Your task to perform on an android device: Open the Play Movies app and select the watchlist tab. Image 0: 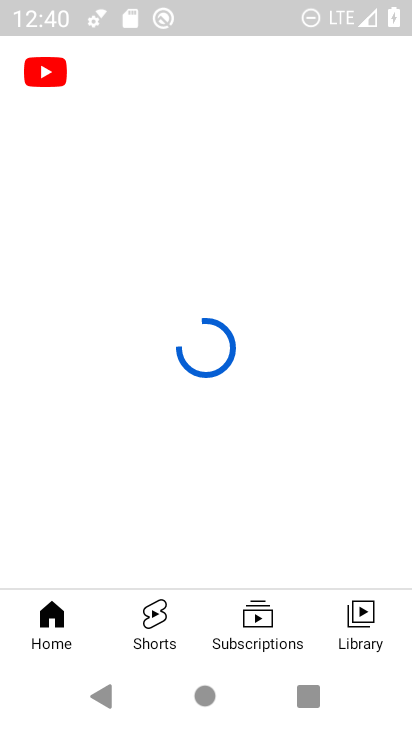
Step 0: press home button
Your task to perform on an android device: Open the Play Movies app and select the watchlist tab. Image 1: 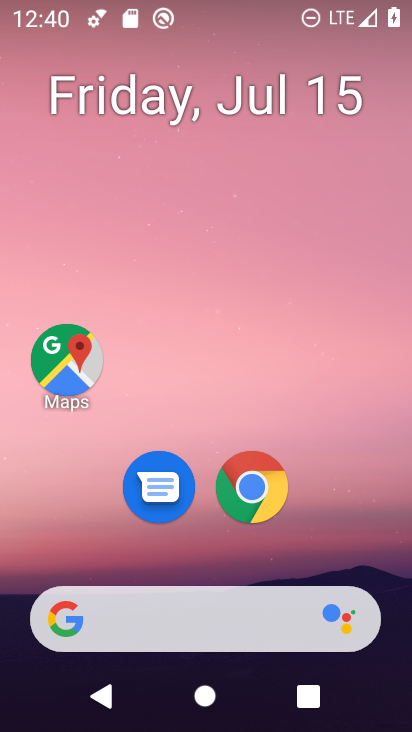
Step 1: drag from (317, 629) to (320, 366)
Your task to perform on an android device: Open the Play Movies app and select the watchlist tab. Image 2: 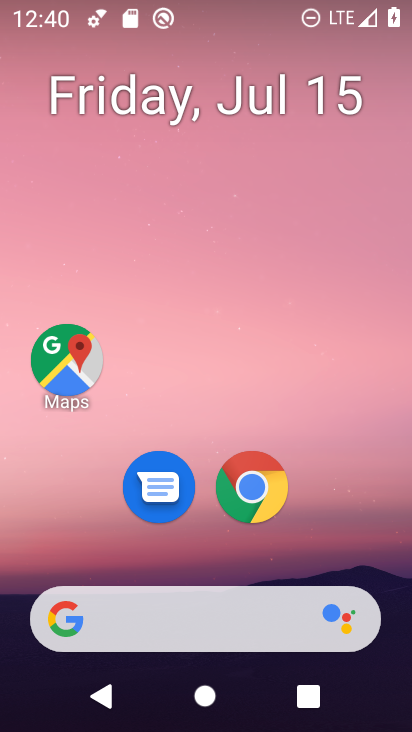
Step 2: drag from (198, 628) to (381, 487)
Your task to perform on an android device: Open the Play Movies app and select the watchlist tab. Image 3: 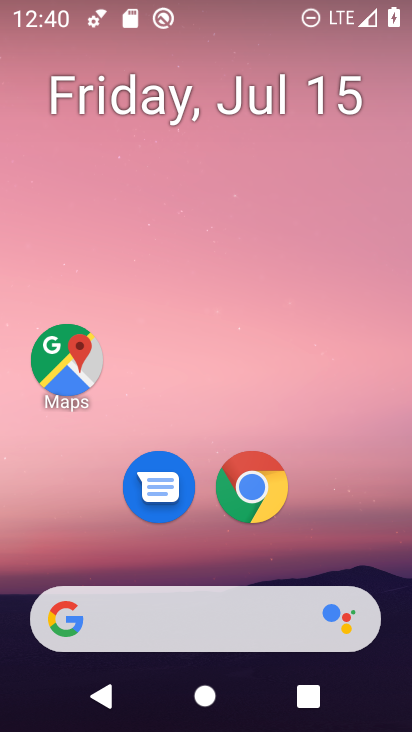
Step 3: drag from (320, 586) to (295, 204)
Your task to perform on an android device: Open the Play Movies app and select the watchlist tab. Image 4: 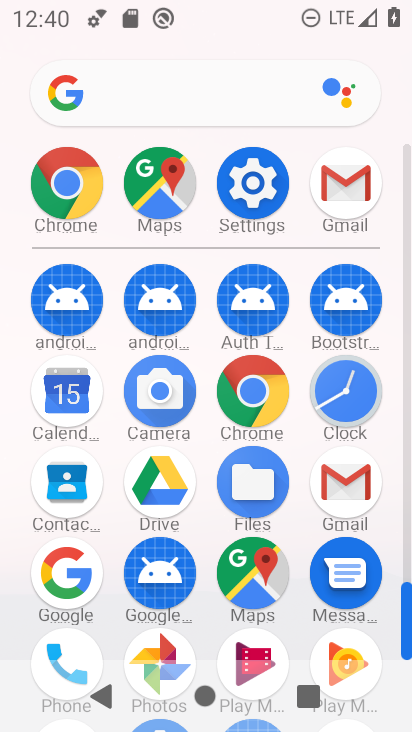
Step 4: drag from (232, 483) to (220, 237)
Your task to perform on an android device: Open the Play Movies app and select the watchlist tab. Image 5: 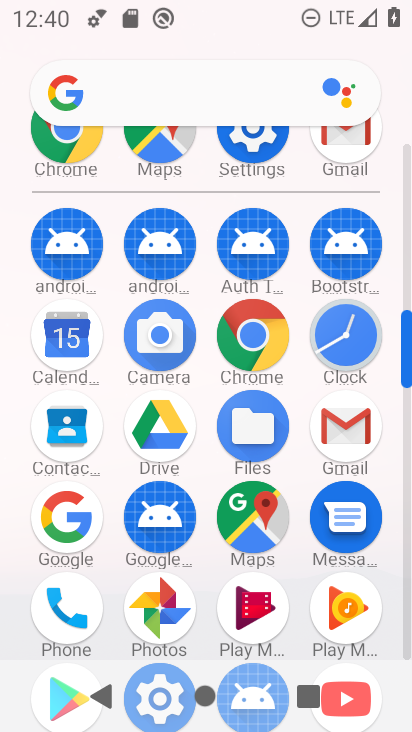
Step 5: click (241, 607)
Your task to perform on an android device: Open the Play Movies app and select the watchlist tab. Image 6: 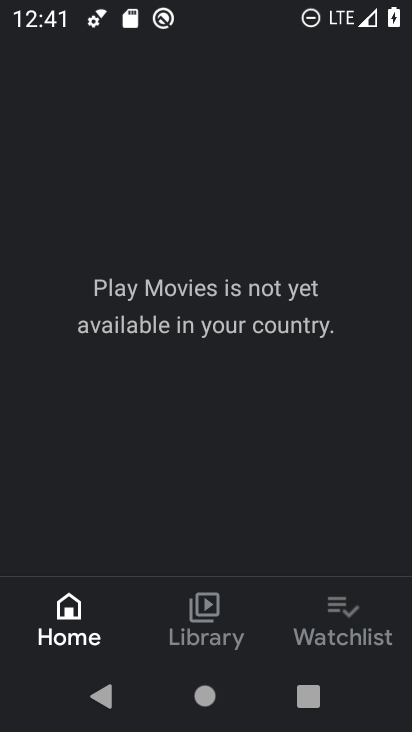
Step 6: click (348, 624)
Your task to perform on an android device: Open the Play Movies app and select the watchlist tab. Image 7: 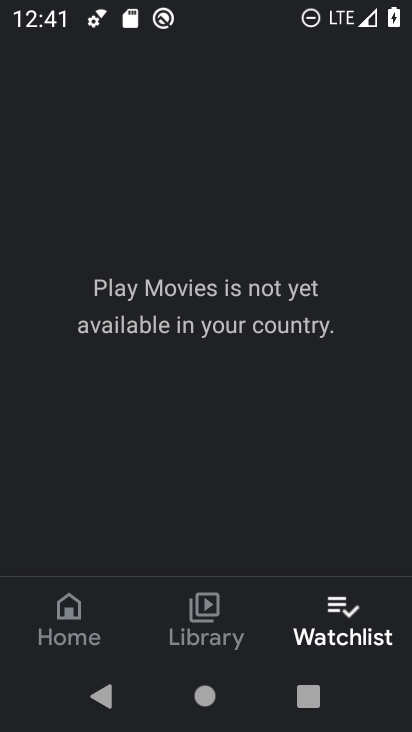
Step 7: task complete